Your task to perform on an android device: open a new tab in the chrome app Image 0: 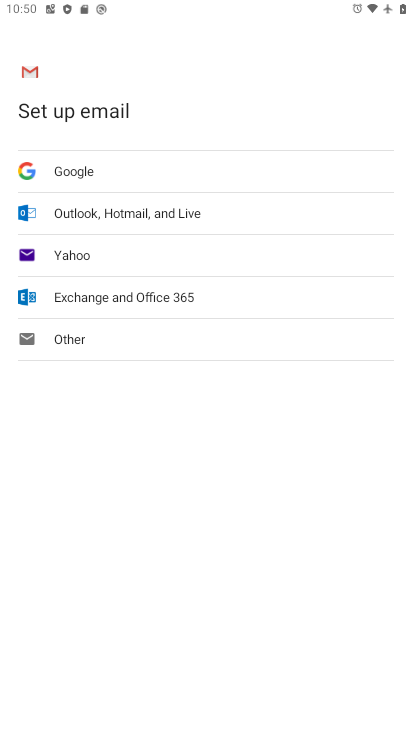
Step 0: press home button
Your task to perform on an android device: open a new tab in the chrome app Image 1: 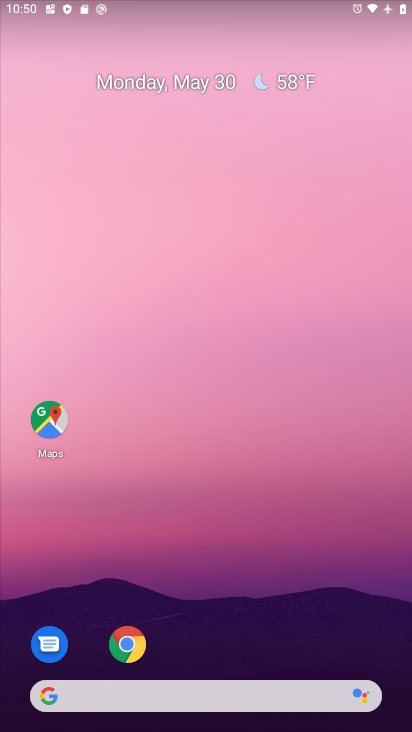
Step 1: click (128, 645)
Your task to perform on an android device: open a new tab in the chrome app Image 2: 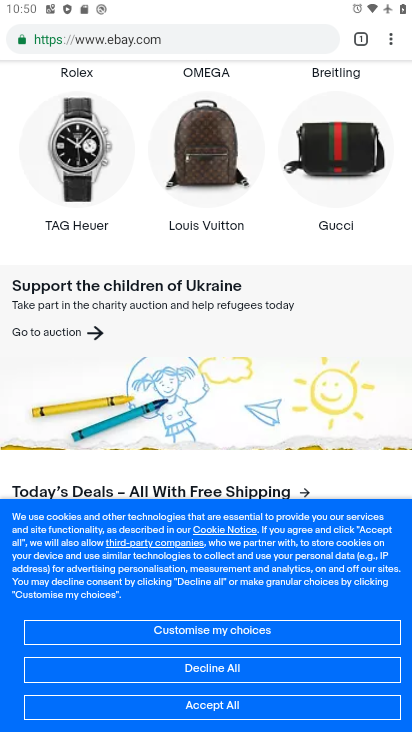
Step 2: click (389, 40)
Your task to perform on an android device: open a new tab in the chrome app Image 3: 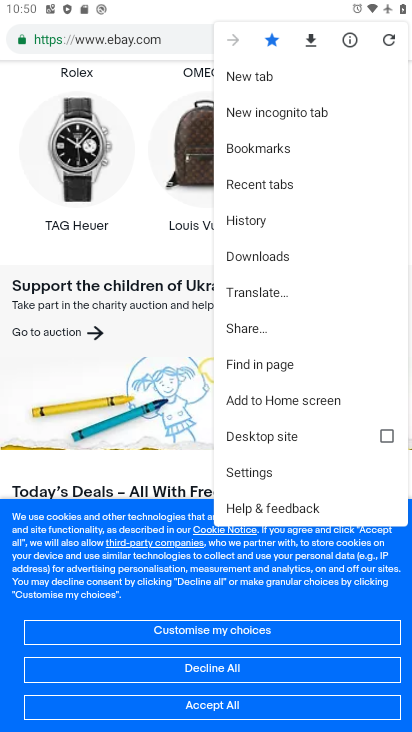
Step 3: click (253, 69)
Your task to perform on an android device: open a new tab in the chrome app Image 4: 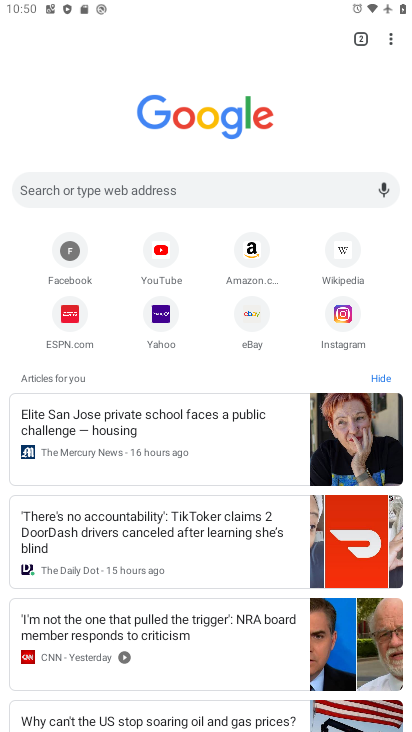
Step 4: task complete